Your task to perform on an android device: see creations saved in the google photos Image 0: 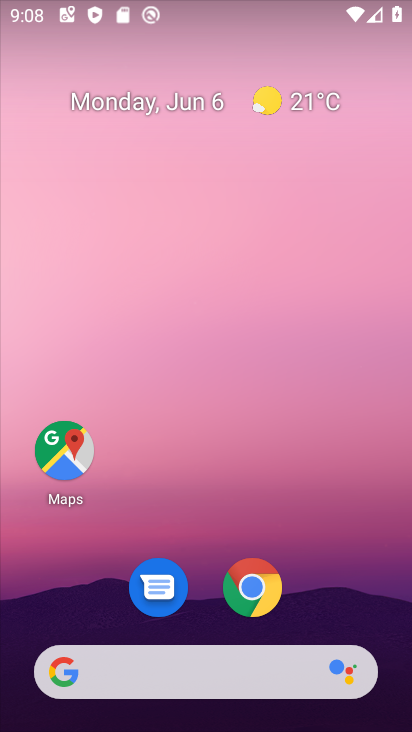
Step 0: drag from (87, 731) to (355, 21)
Your task to perform on an android device: see creations saved in the google photos Image 1: 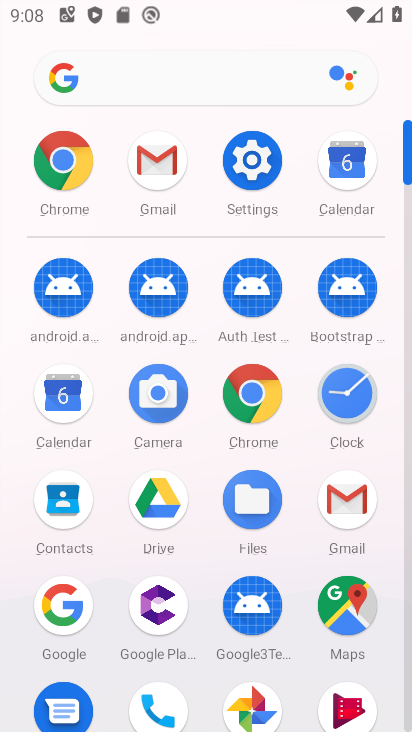
Step 1: click (264, 693)
Your task to perform on an android device: see creations saved in the google photos Image 2: 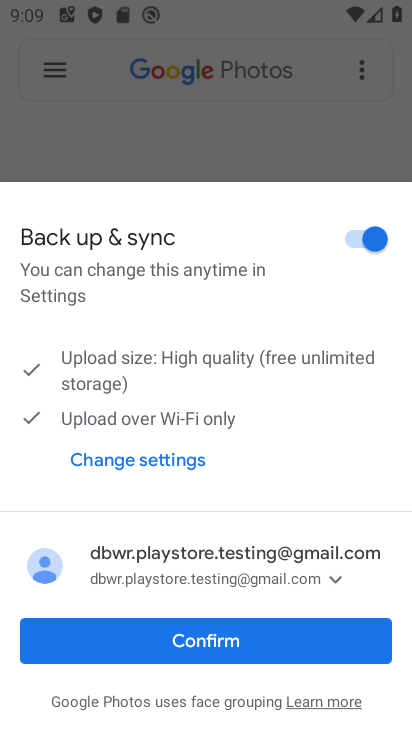
Step 2: click (320, 622)
Your task to perform on an android device: see creations saved in the google photos Image 3: 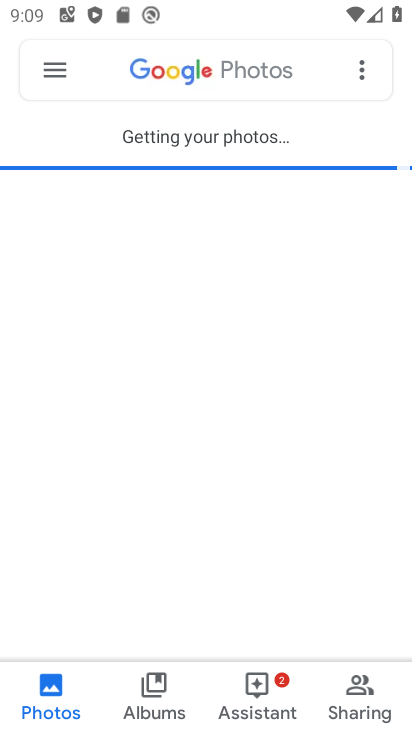
Step 3: click (225, 62)
Your task to perform on an android device: see creations saved in the google photos Image 4: 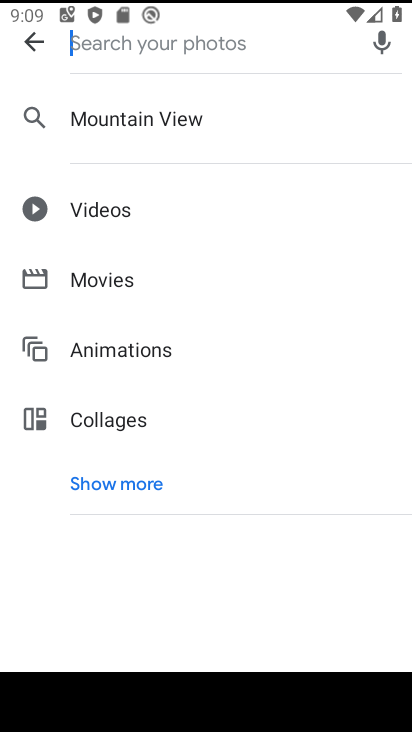
Step 4: click (99, 480)
Your task to perform on an android device: see creations saved in the google photos Image 5: 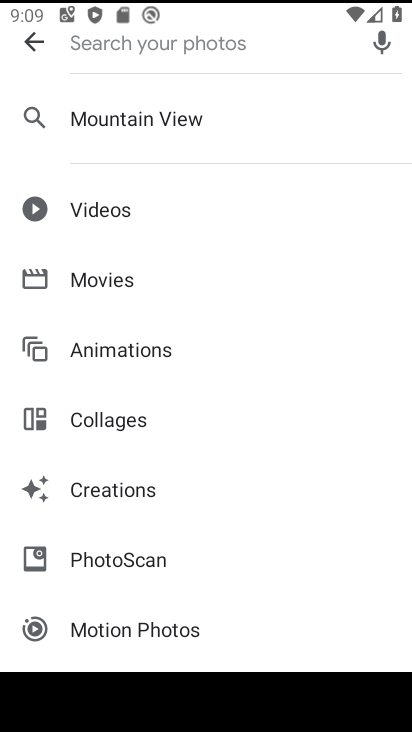
Step 5: click (99, 490)
Your task to perform on an android device: see creations saved in the google photos Image 6: 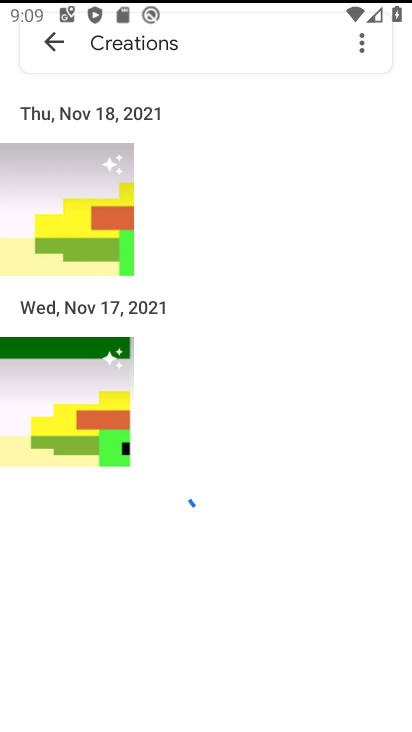
Step 6: task complete